Your task to perform on an android device: Look up the best rated book on Goodreads Image 0: 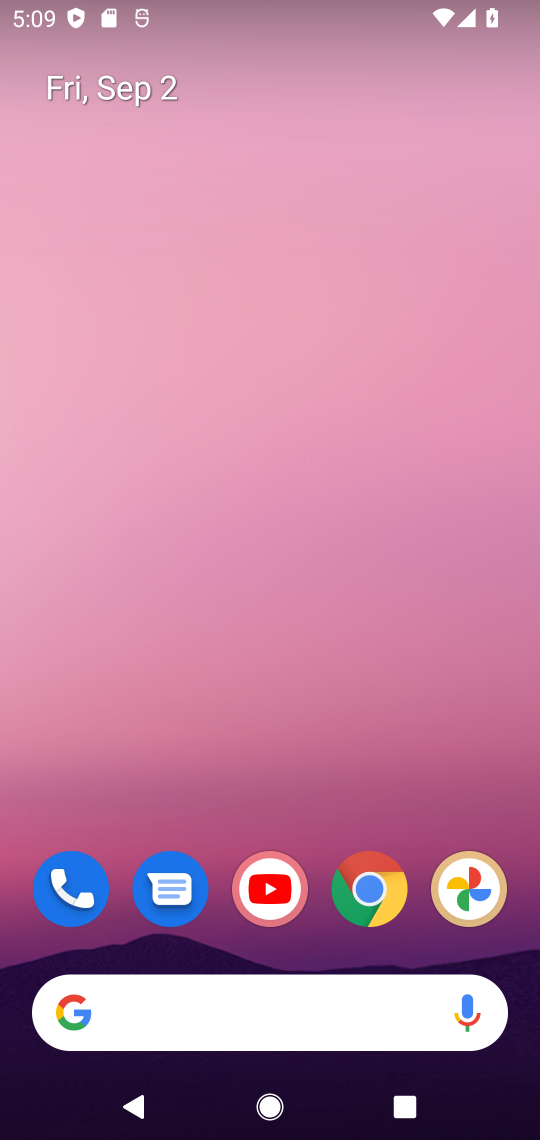
Step 0: click (285, 1003)
Your task to perform on an android device: Look up the best rated book on Goodreads Image 1: 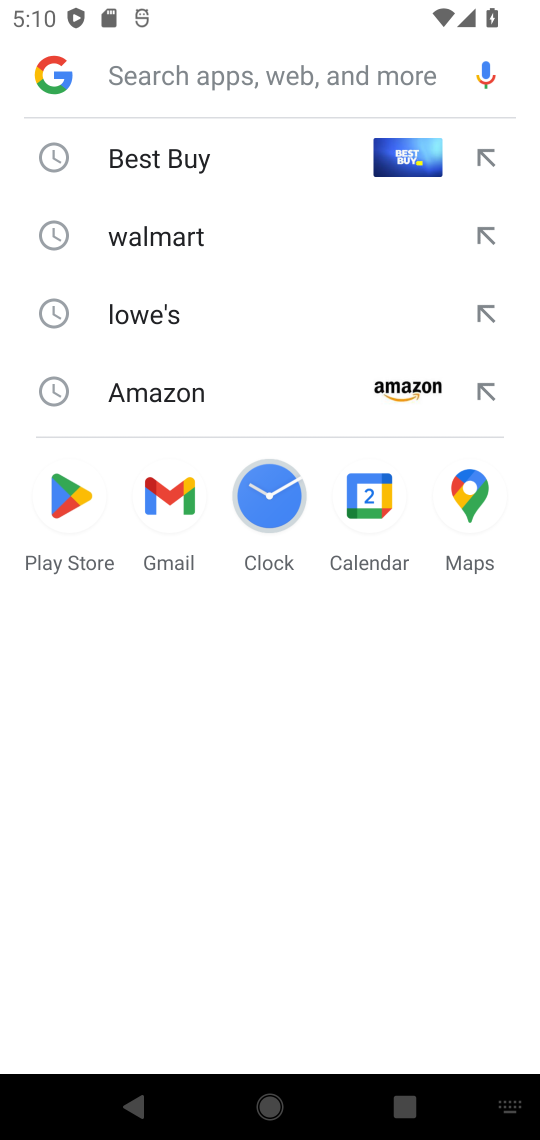
Step 1: type "Goodreads"
Your task to perform on an android device: Look up the best rated book on Goodreads Image 2: 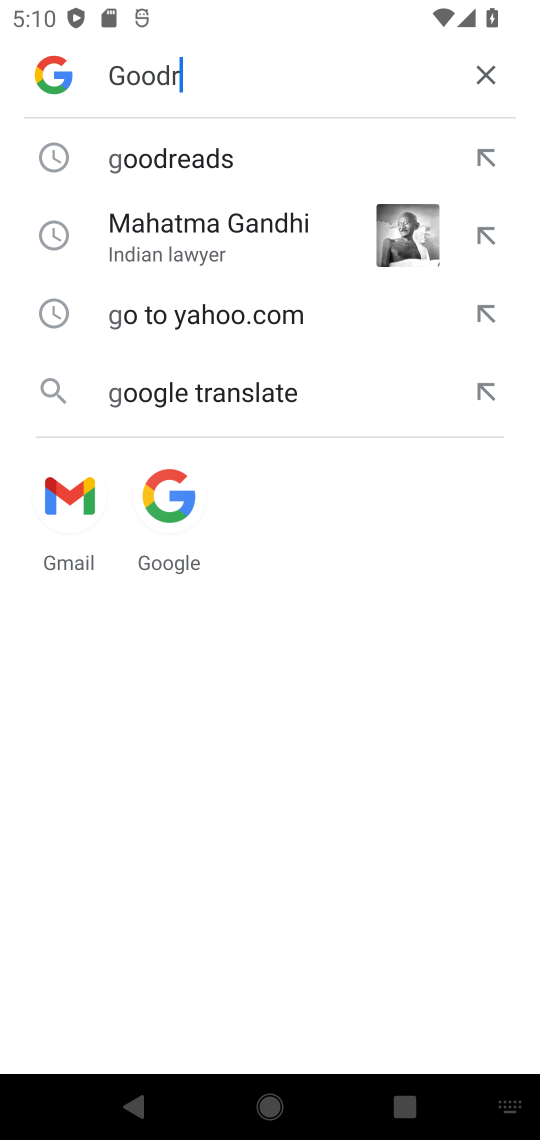
Step 2: type ""
Your task to perform on an android device: Look up the best rated book on Goodreads Image 3: 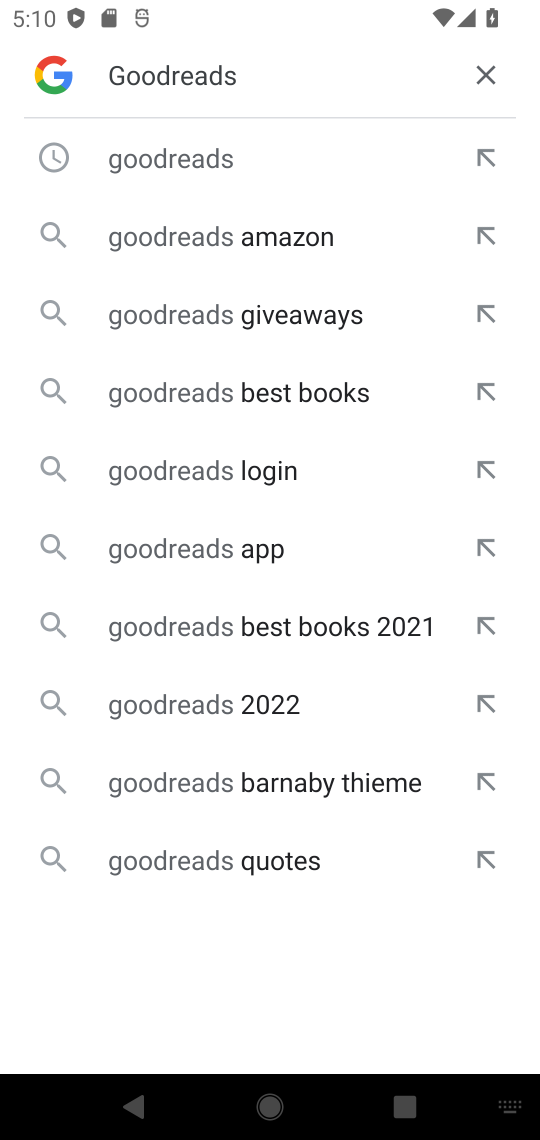
Step 3: click (169, 162)
Your task to perform on an android device: Look up the best rated book on Goodreads Image 4: 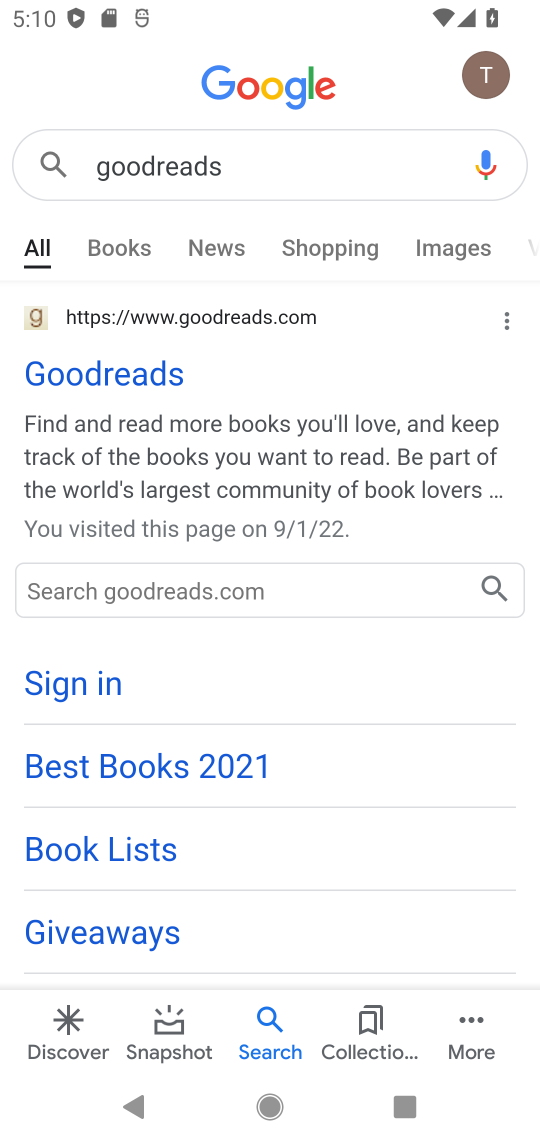
Step 4: click (128, 365)
Your task to perform on an android device: Look up the best rated book on Goodreads Image 5: 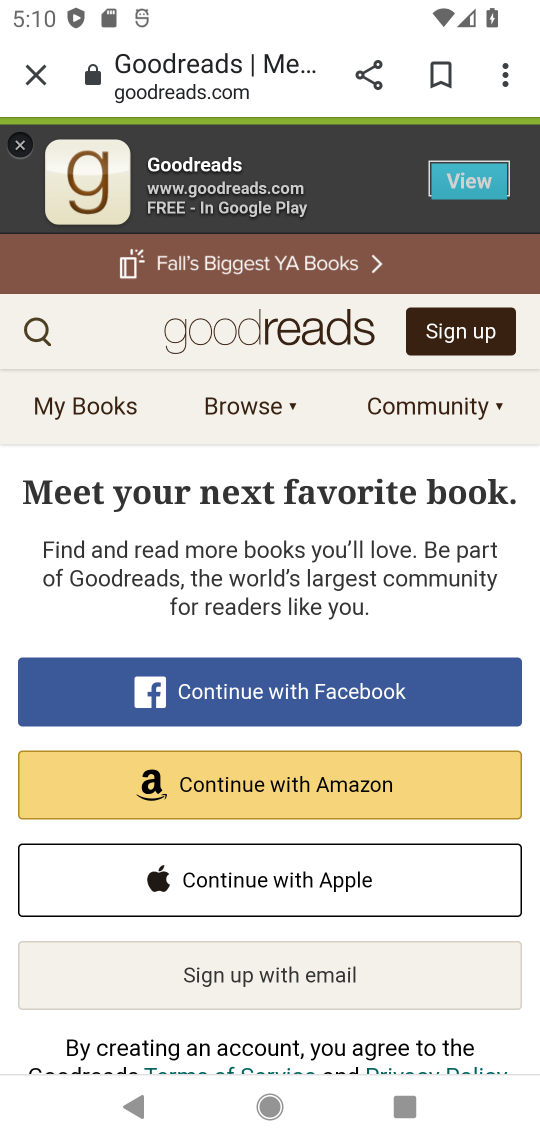
Step 5: drag from (336, 989) to (405, 456)
Your task to perform on an android device: Look up the best rated book on Goodreads Image 6: 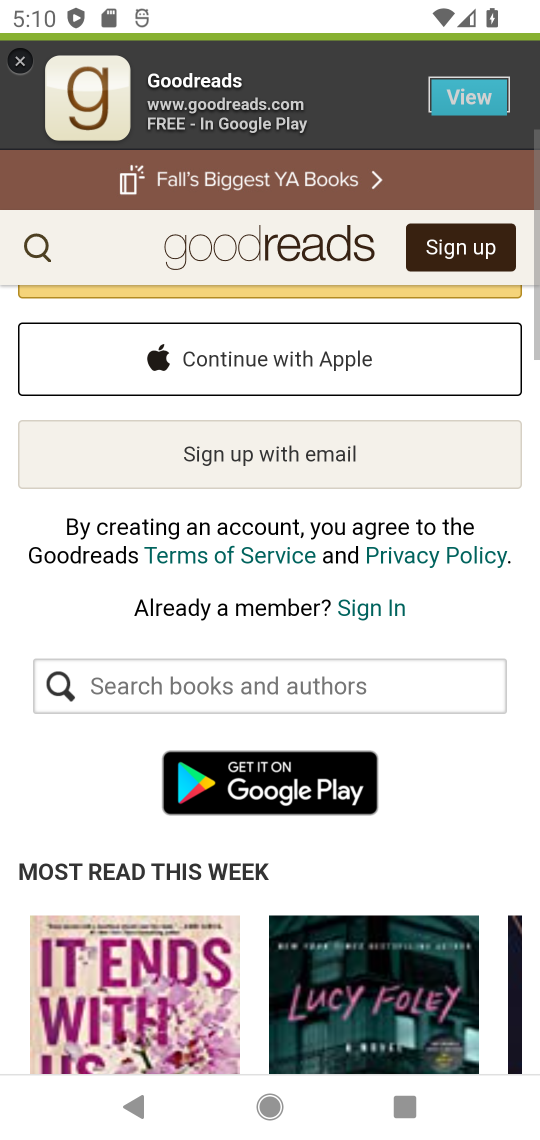
Step 6: drag from (393, 850) to (417, 581)
Your task to perform on an android device: Look up the best rated book on Goodreads Image 7: 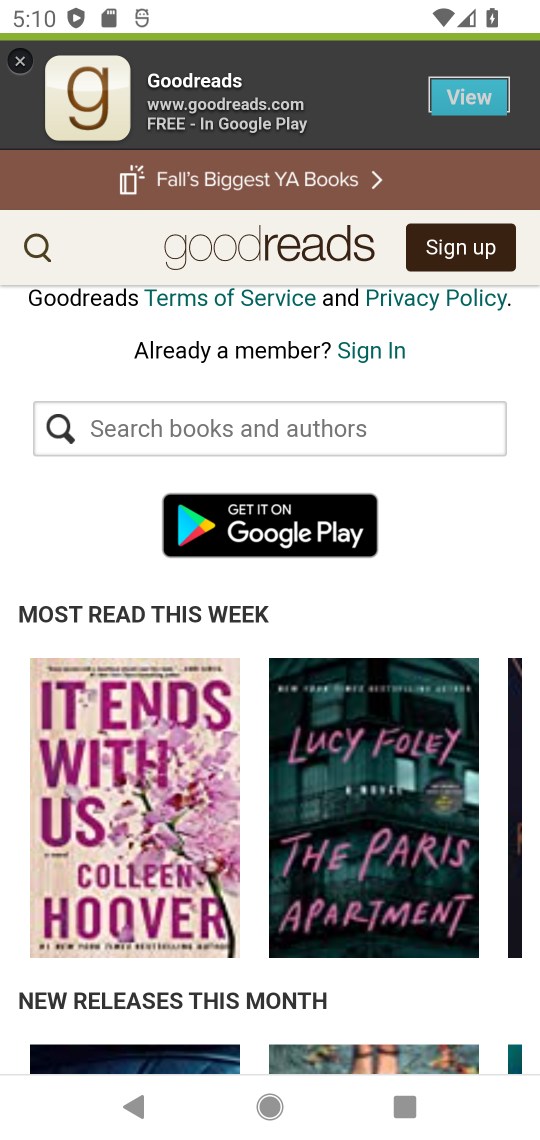
Step 7: drag from (414, 659) to (428, 550)
Your task to perform on an android device: Look up the best rated book on Goodreads Image 8: 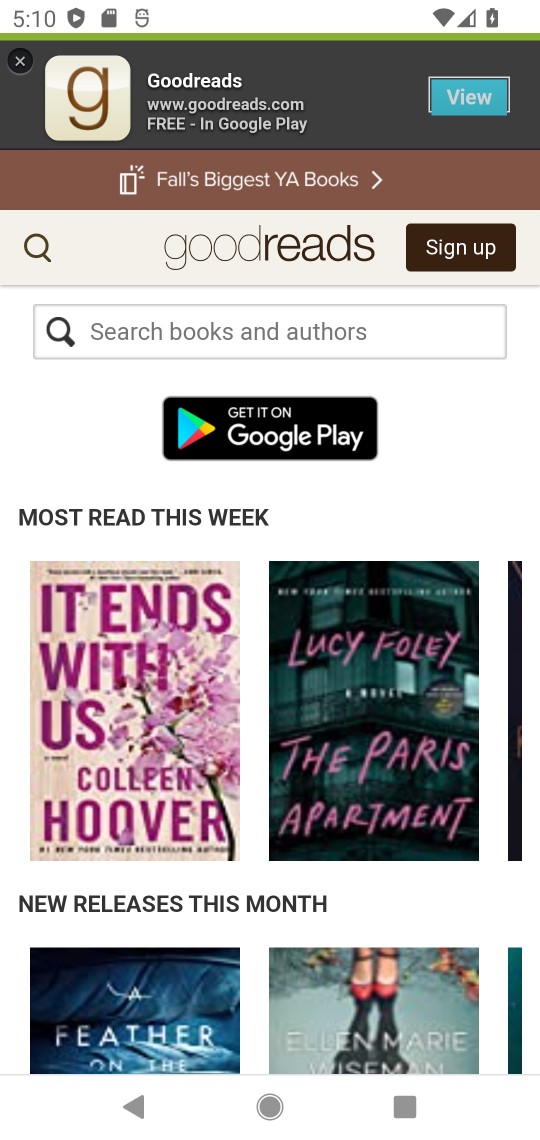
Step 8: click (273, 338)
Your task to perform on an android device: Look up the best rated book on Goodreads Image 9: 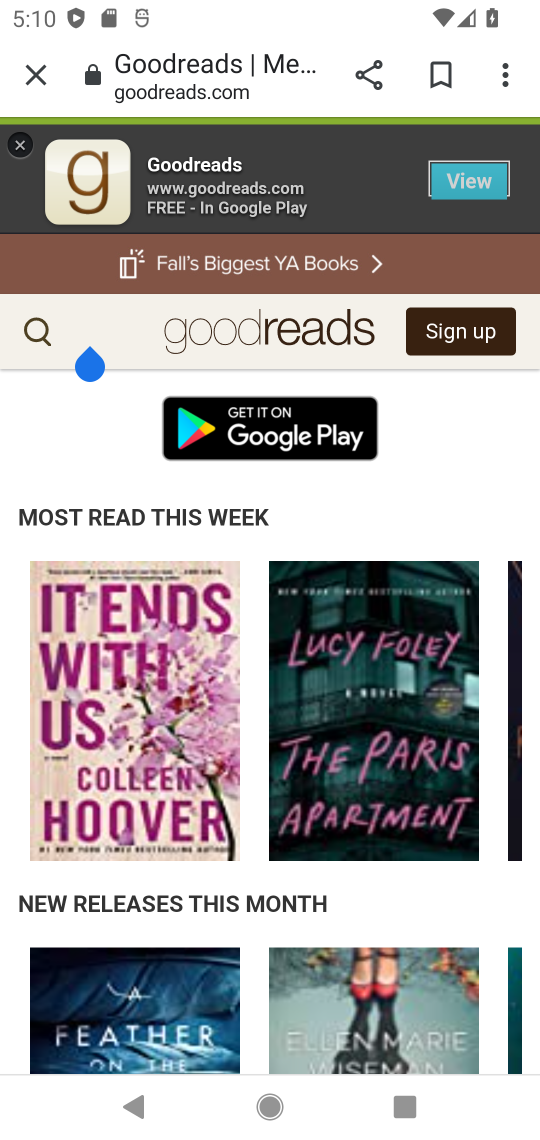
Step 9: type "best rated book"
Your task to perform on an android device: Look up the best rated book on Goodreads Image 10: 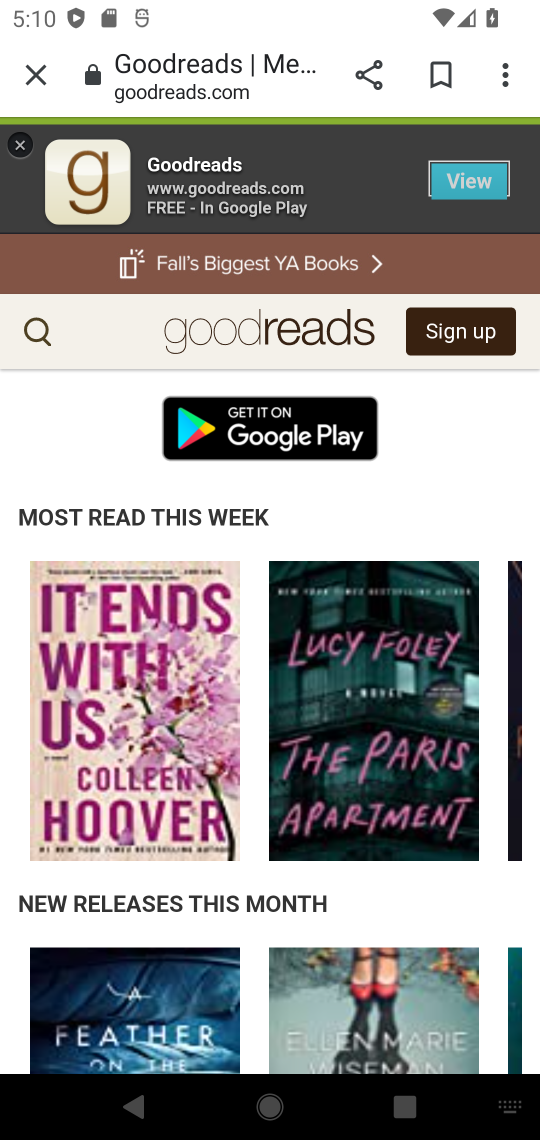
Step 10: click (51, 328)
Your task to perform on an android device: Look up the best rated book on Goodreads Image 11: 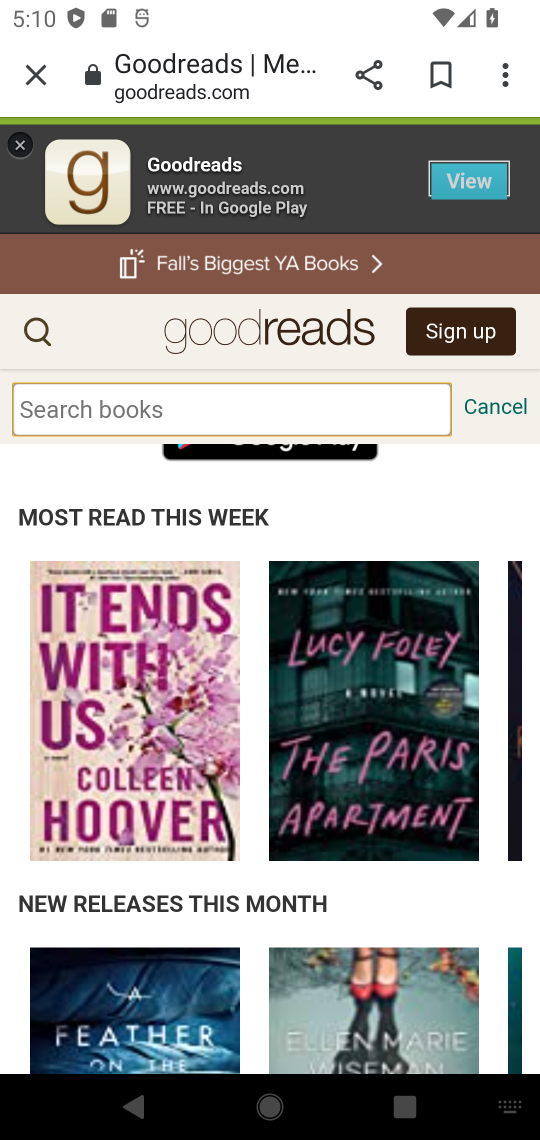
Step 11: click (155, 414)
Your task to perform on an android device: Look up the best rated book on Goodreads Image 12: 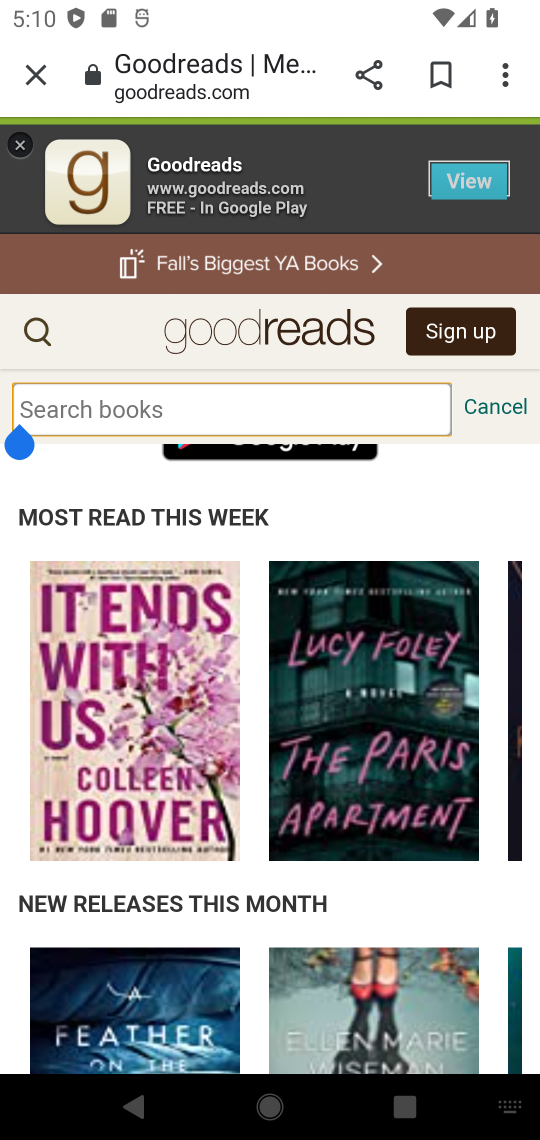
Step 12: type "best rated book"
Your task to perform on an android device: Look up the best rated book on Goodreads Image 13: 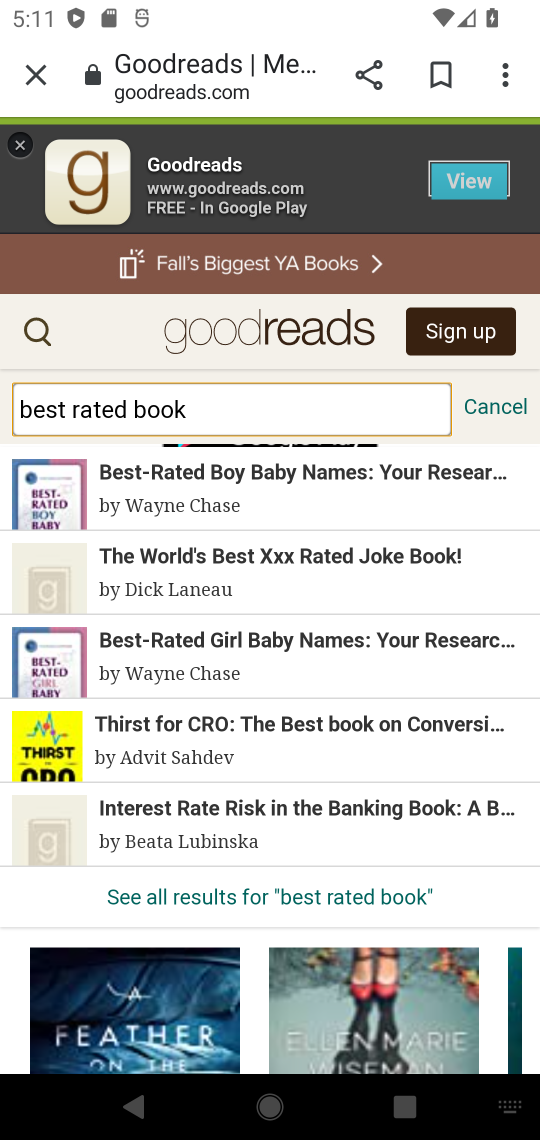
Step 13: click (391, 512)
Your task to perform on an android device: Look up the best rated book on Goodreads Image 14: 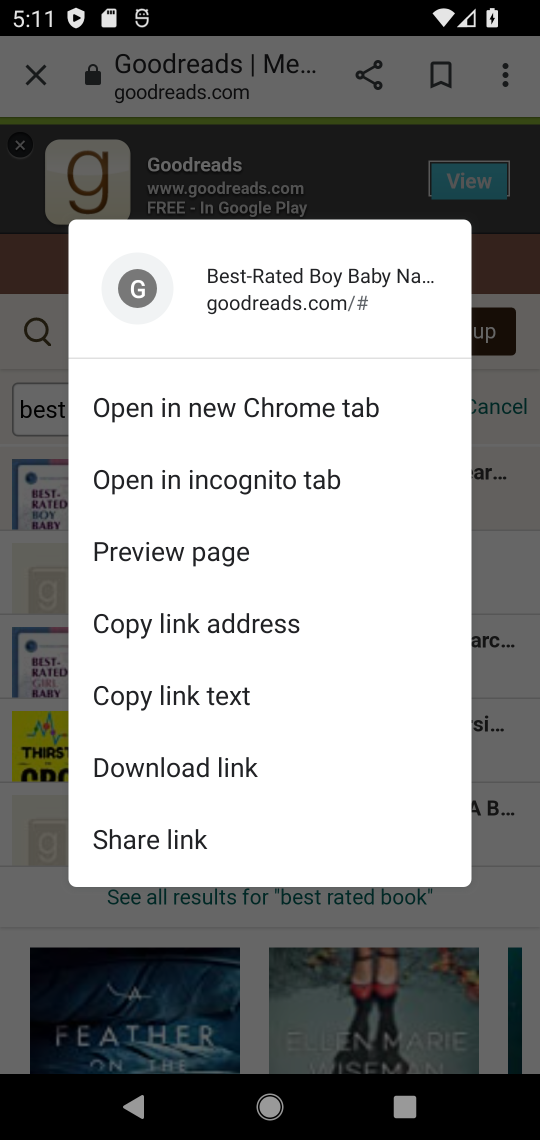
Step 14: click (526, 539)
Your task to perform on an android device: Look up the best rated book on Goodreads Image 15: 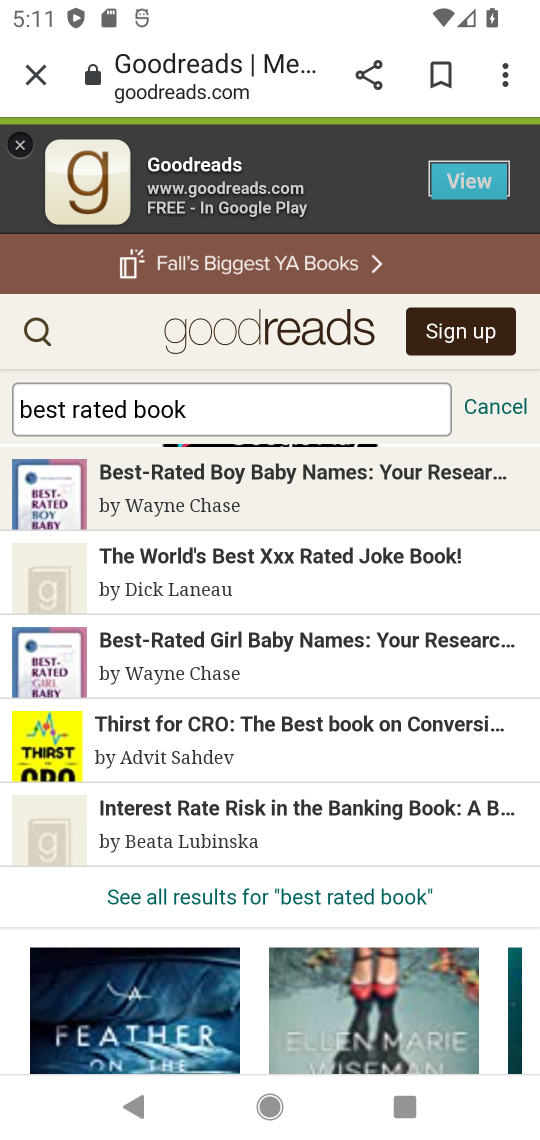
Step 15: click (151, 492)
Your task to perform on an android device: Look up the best rated book on Goodreads Image 16: 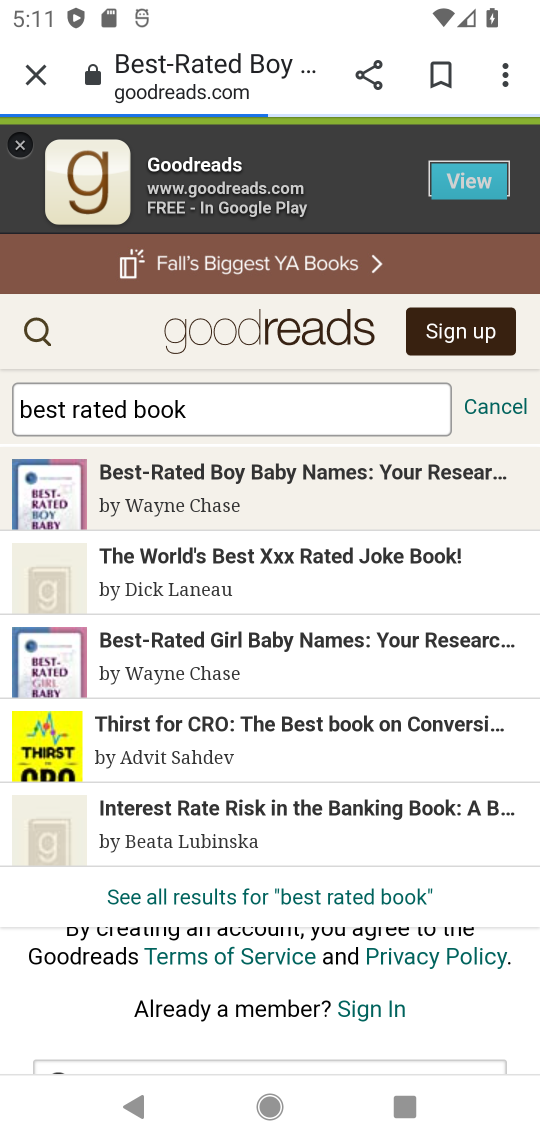
Step 16: task complete